Your task to perform on an android device: change timer sound Image 0: 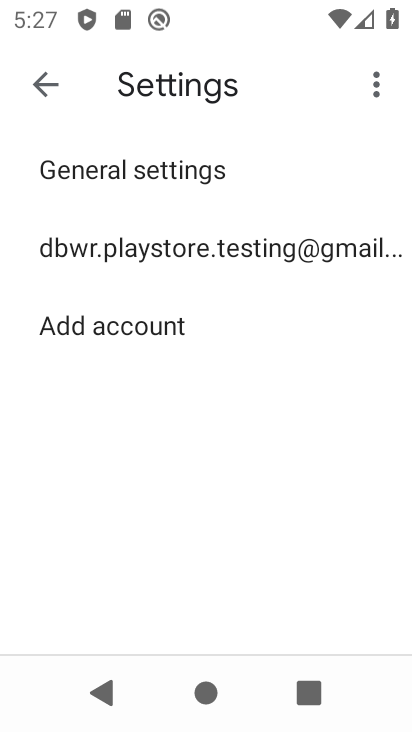
Step 0: press home button
Your task to perform on an android device: change timer sound Image 1: 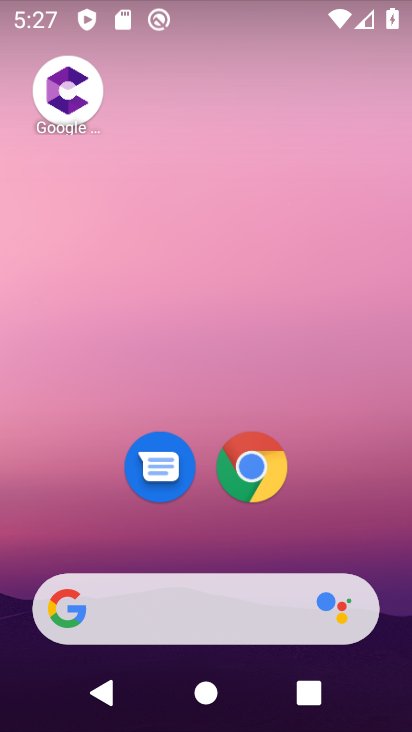
Step 1: drag from (313, 505) to (304, 51)
Your task to perform on an android device: change timer sound Image 2: 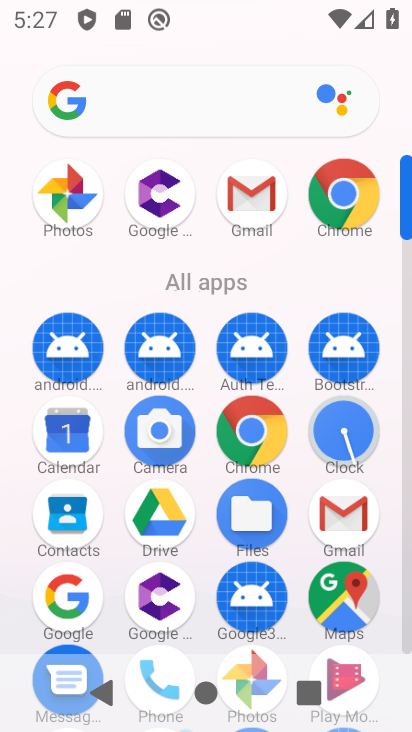
Step 2: drag from (186, 287) to (200, 21)
Your task to perform on an android device: change timer sound Image 3: 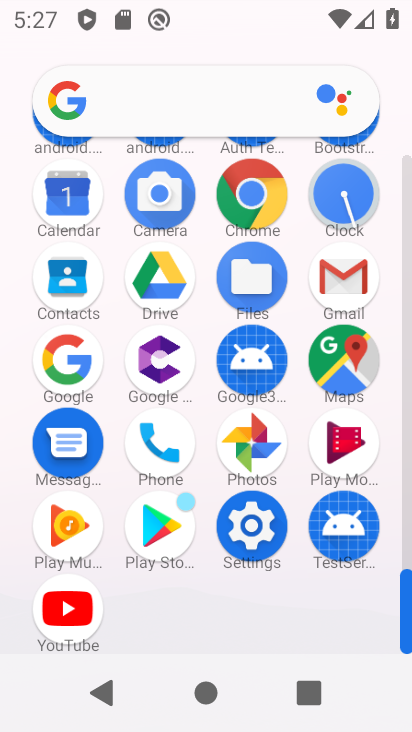
Step 3: click (258, 531)
Your task to perform on an android device: change timer sound Image 4: 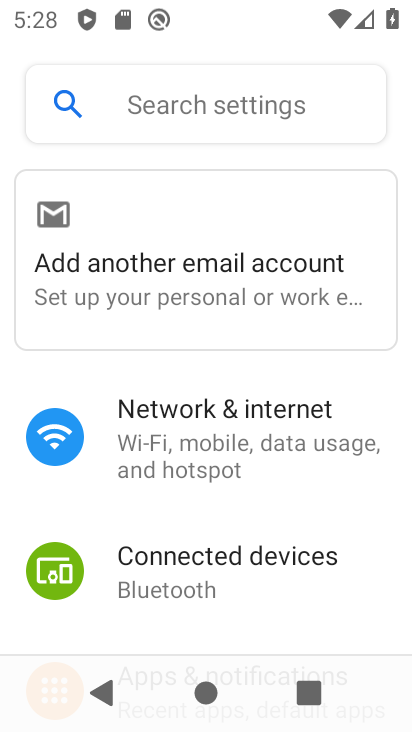
Step 4: drag from (281, 592) to (289, 187)
Your task to perform on an android device: change timer sound Image 5: 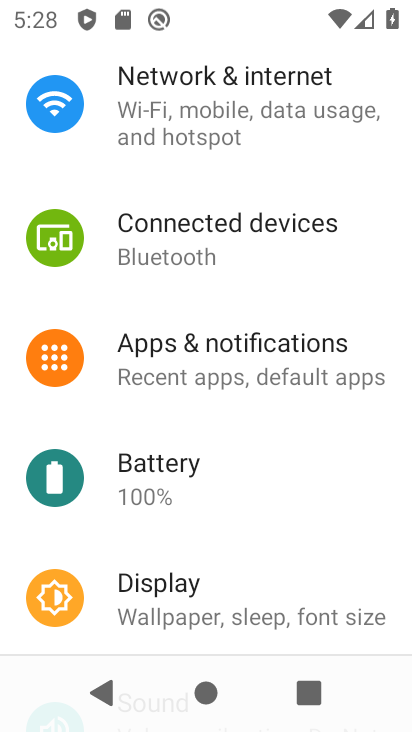
Step 5: drag from (260, 547) to (242, 130)
Your task to perform on an android device: change timer sound Image 6: 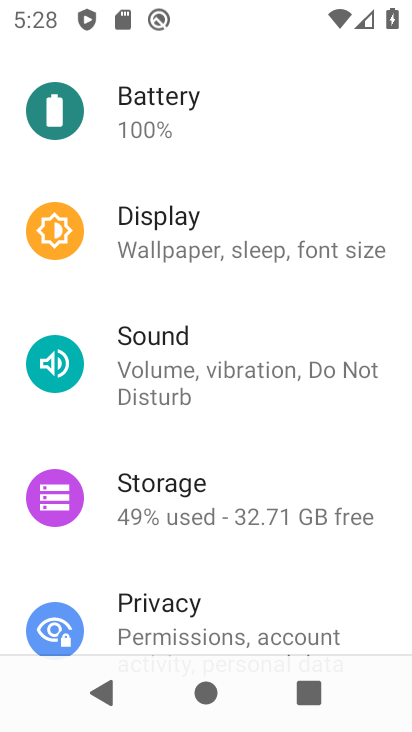
Step 6: click (152, 351)
Your task to perform on an android device: change timer sound Image 7: 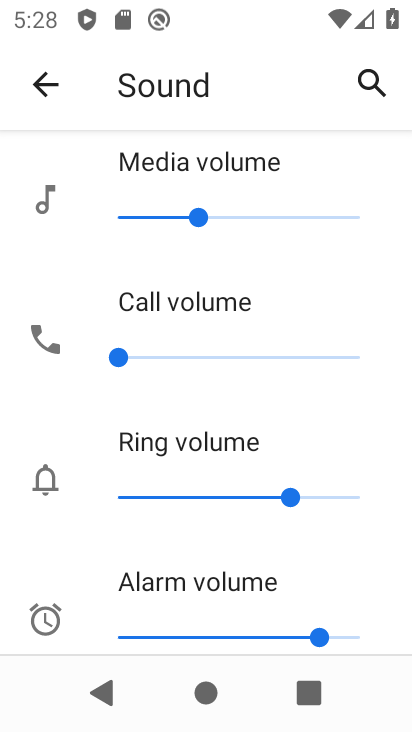
Step 7: task complete